Your task to perform on an android device: What's the weather? Image 0: 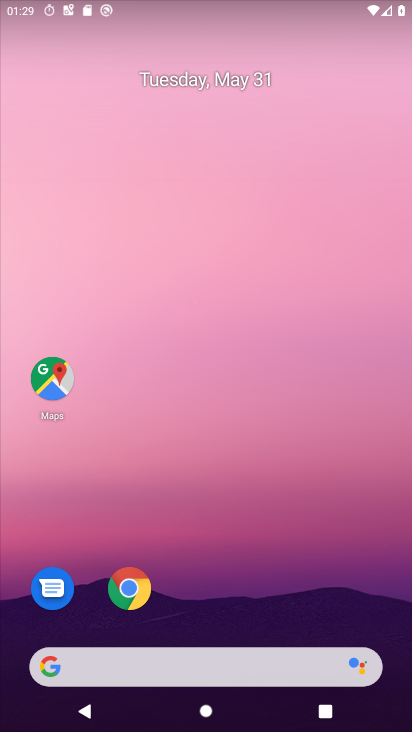
Step 0: drag from (340, 642) to (389, 17)
Your task to perform on an android device: What's the weather? Image 1: 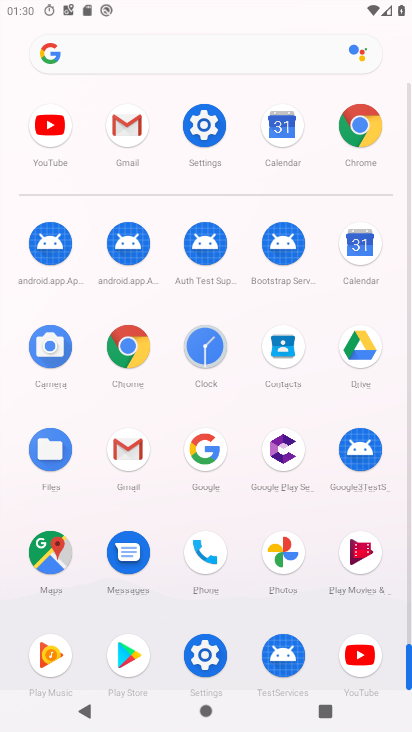
Step 1: click (145, 351)
Your task to perform on an android device: What's the weather? Image 2: 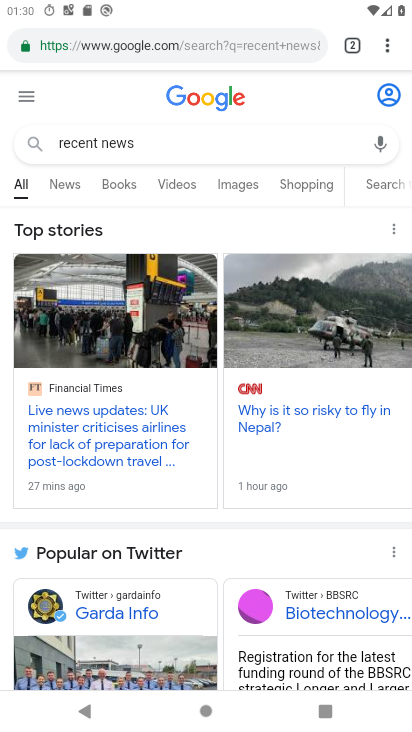
Step 2: click (232, 37)
Your task to perform on an android device: What's the weather? Image 3: 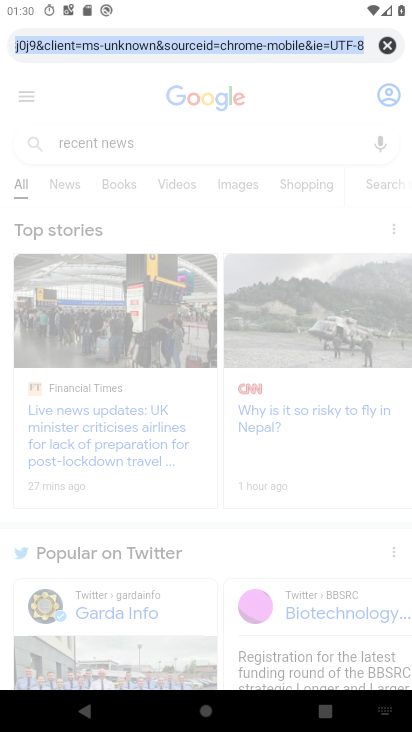
Step 3: type "weather"
Your task to perform on an android device: What's the weather? Image 4: 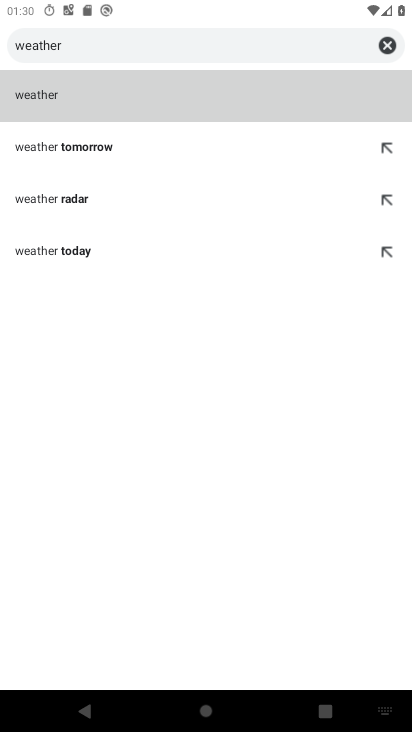
Step 4: click (32, 96)
Your task to perform on an android device: What's the weather? Image 5: 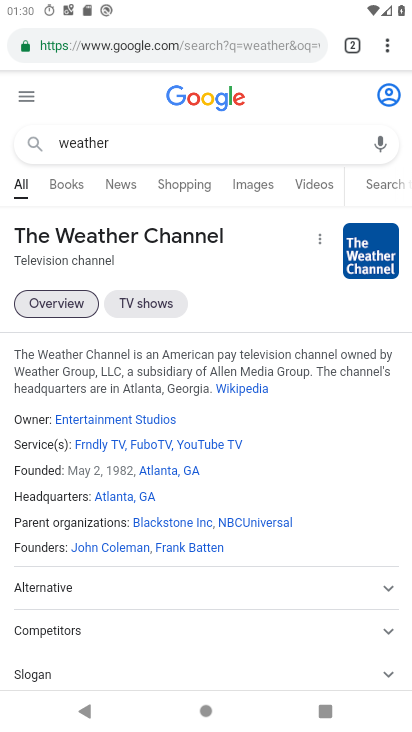
Step 5: task complete